Your task to perform on an android device: Show the shopping cart on costco.com. Search for usb-a on costco.com, select the first entry, and add it to the cart. Image 0: 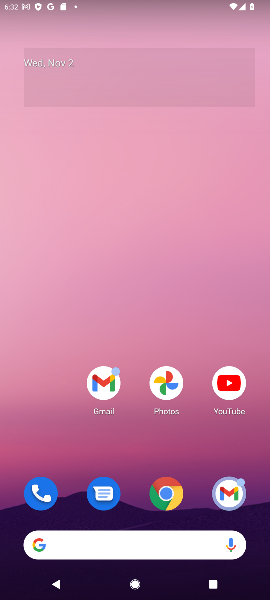
Step 0: drag from (99, 455) to (198, 148)
Your task to perform on an android device: Show the shopping cart on costco.com. Search for usb-a on costco.com, select the first entry, and add it to the cart. Image 1: 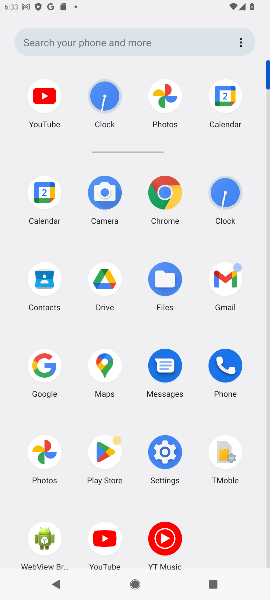
Step 1: click (45, 371)
Your task to perform on an android device: Show the shopping cart on costco.com. Search for usb-a on costco.com, select the first entry, and add it to the cart. Image 2: 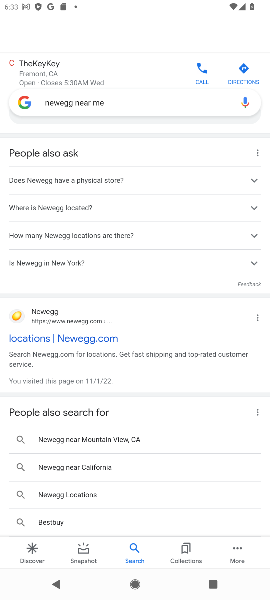
Step 2: click (64, 103)
Your task to perform on an android device: Show the shopping cart on costco.com. Search for usb-a on costco.com, select the first entry, and add it to the cart. Image 3: 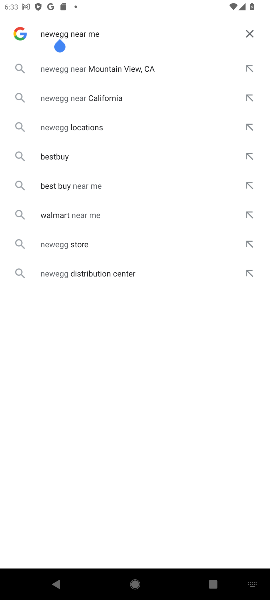
Step 3: click (242, 28)
Your task to perform on an android device: Show the shopping cart on costco.com. Search for usb-a on costco.com, select the first entry, and add it to the cart. Image 4: 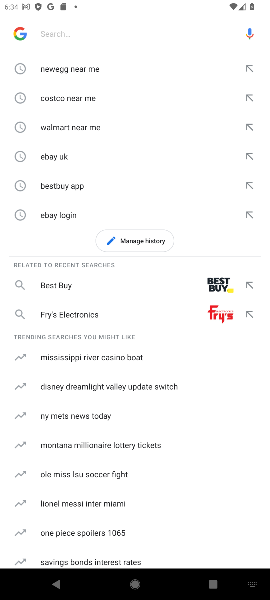
Step 4: click (90, 31)
Your task to perform on an android device: Show the shopping cart on costco.com. Search for usb-a on costco.com, select the first entry, and add it to the cart. Image 5: 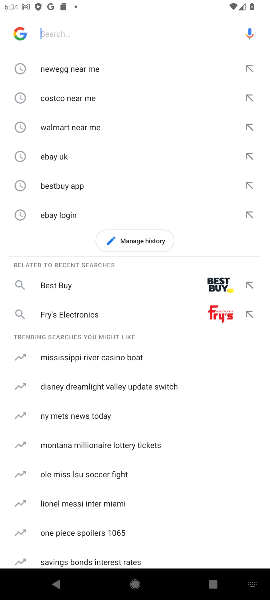
Step 5: type "costco "
Your task to perform on an android device: Show the shopping cart on costco.com. Search for usb-a on costco.com, select the first entry, and add it to the cart. Image 6: 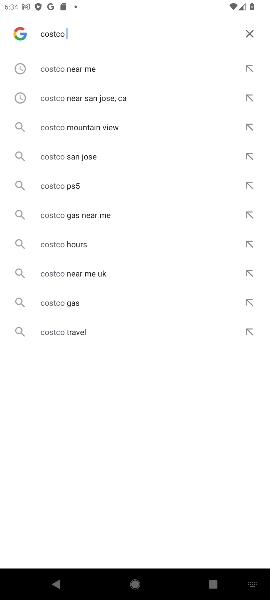
Step 6: click (73, 67)
Your task to perform on an android device: Show the shopping cart on costco.com. Search for usb-a on costco.com, select the first entry, and add it to the cart. Image 7: 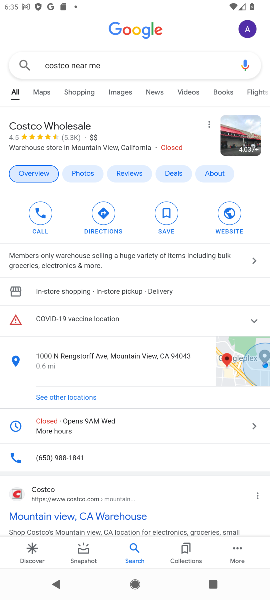
Step 7: click (13, 497)
Your task to perform on an android device: Show the shopping cart on costco.com. Search for usb-a on costco.com, select the first entry, and add it to the cart. Image 8: 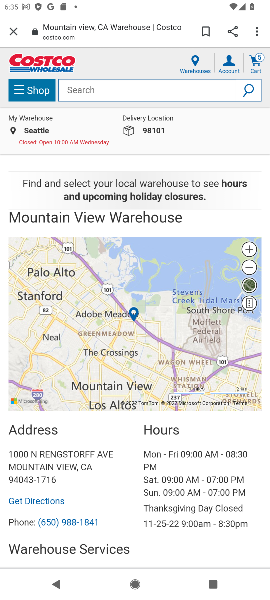
Step 8: click (122, 89)
Your task to perform on an android device: Show the shopping cart on costco.com. Search for usb-a on costco.com, select the first entry, and add it to the cart. Image 9: 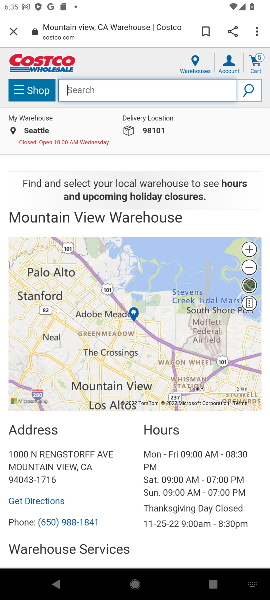
Step 9: type "usb "
Your task to perform on an android device: Show the shopping cart on costco.com. Search for usb-a on costco.com, select the first entry, and add it to the cart. Image 10: 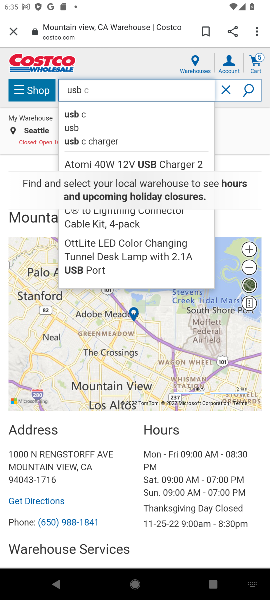
Step 10: click (73, 125)
Your task to perform on an android device: Show the shopping cart on costco.com. Search for usb-a on costco.com, select the first entry, and add it to the cart. Image 11: 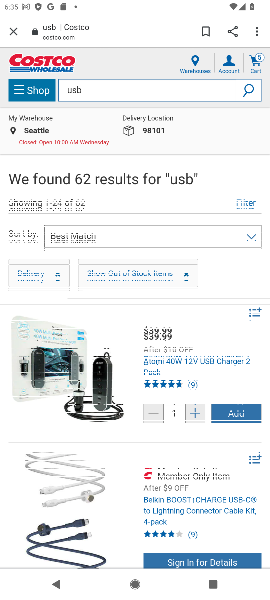
Step 11: click (226, 402)
Your task to perform on an android device: Show the shopping cart on costco.com. Search for usb-a on costco.com, select the first entry, and add it to the cart. Image 12: 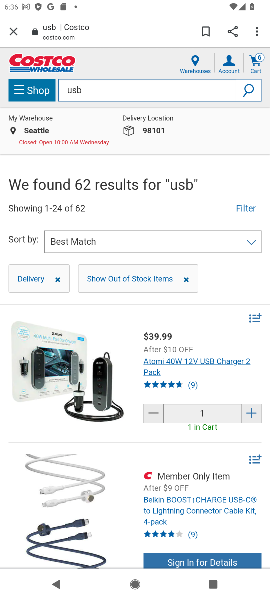
Step 12: task complete